Your task to perform on an android device: What's on my calendar tomorrow? Image 0: 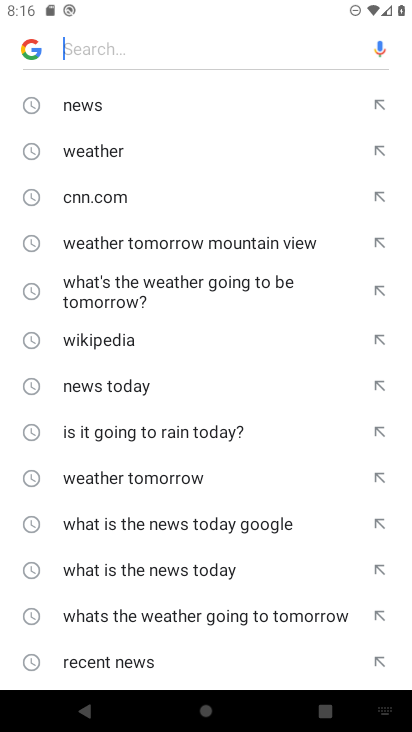
Step 0: press home button
Your task to perform on an android device: What's on my calendar tomorrow? Image 1: 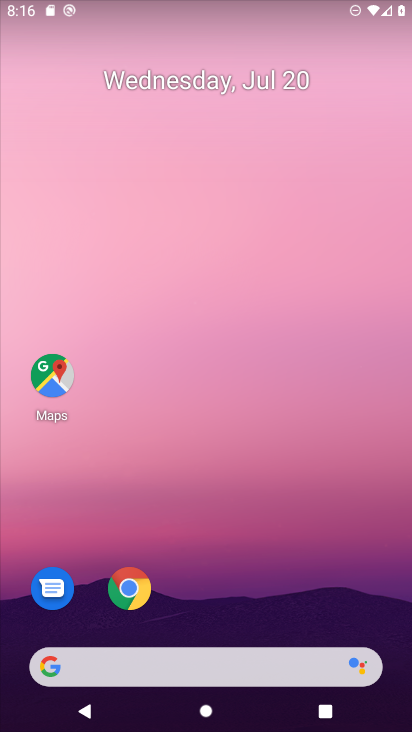
Step 1: drag from (27, 676) to (286, 38)
Your task to perform on an android device: What's on my calendar tomorrow? Image 2: 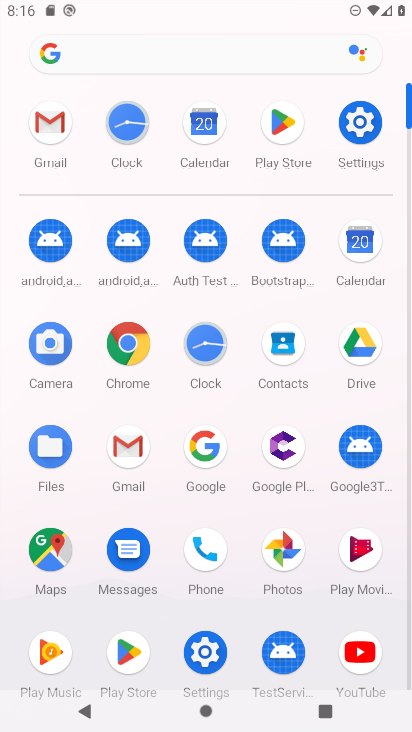
Step 2: click (365, 246)
Your task to perform on an android device: What's on my calendar tomorrow? Image 3: 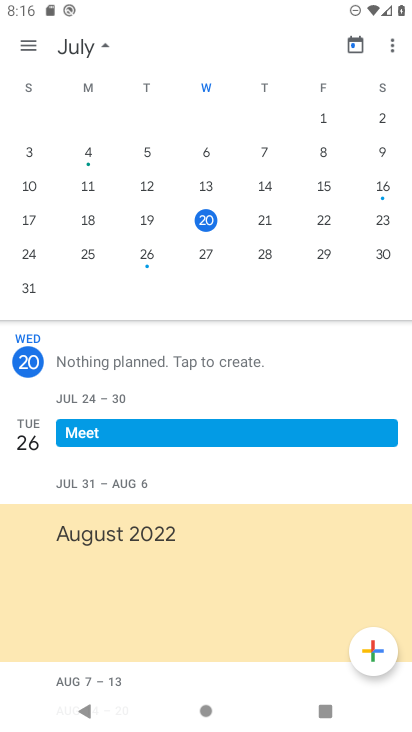
Step 3: task complete